Your task to perform on an android device: uninstall "PUBG MOBILE" Image 0: 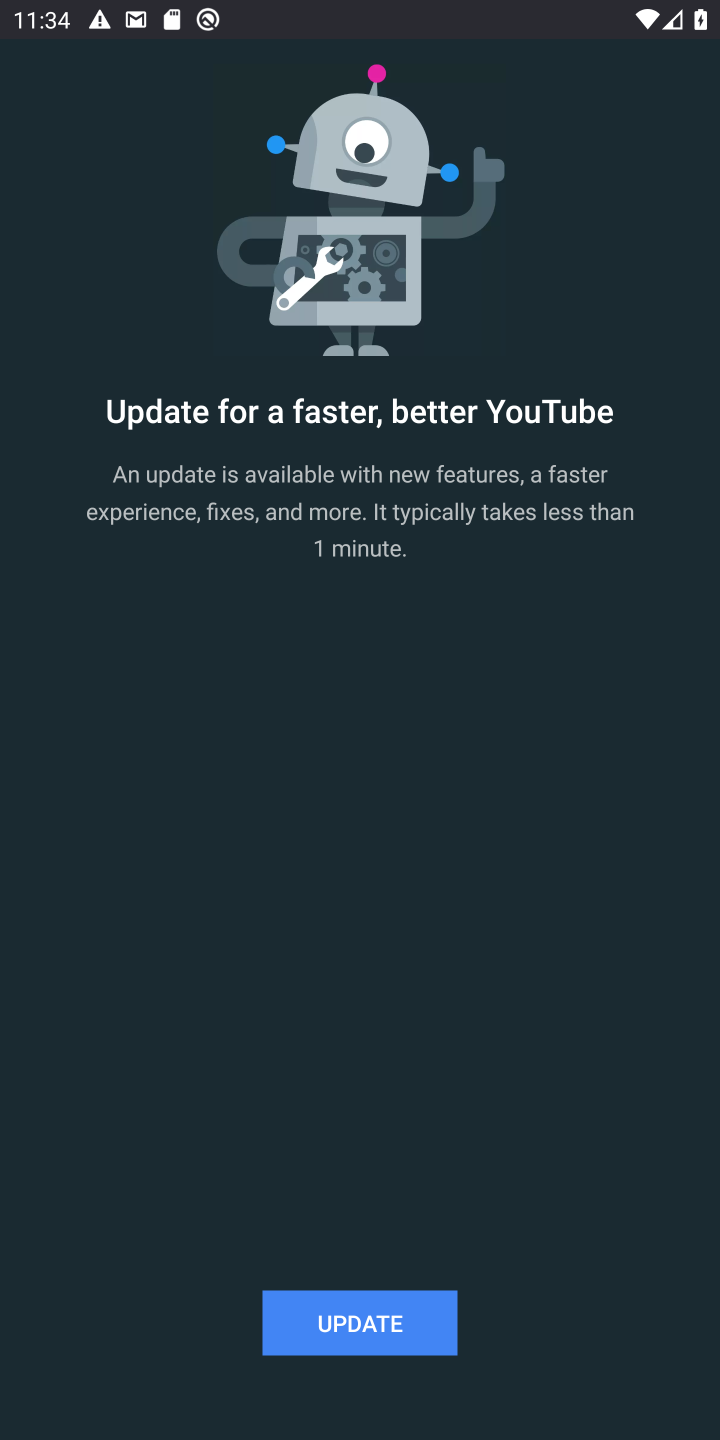
Step 0: press home button
Your task to perform on an android device: uninstall "PUBG MOBILE" Image 1: 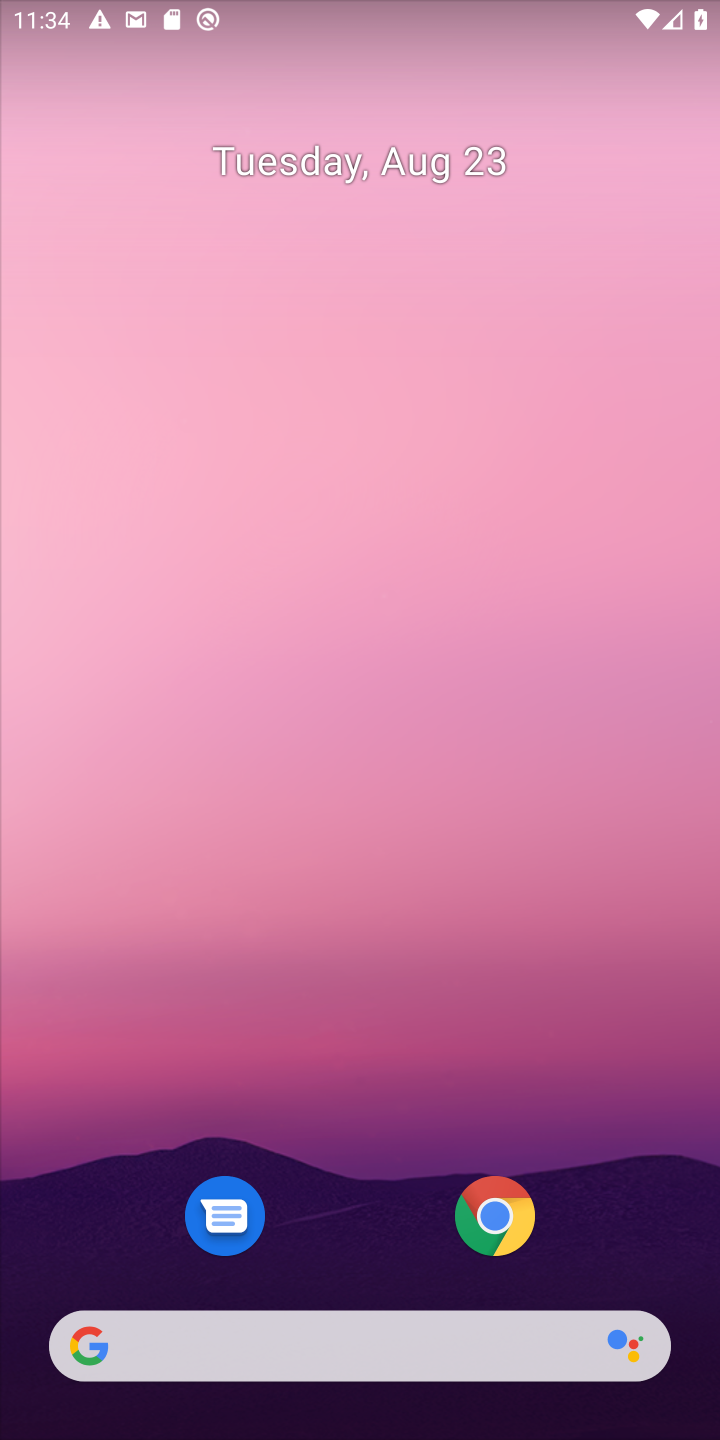
Step 1: drag from (297, 1357) to (303, 109)
Your task to perform on an android device: uninstall "PUBG MOBILE" Image 2: 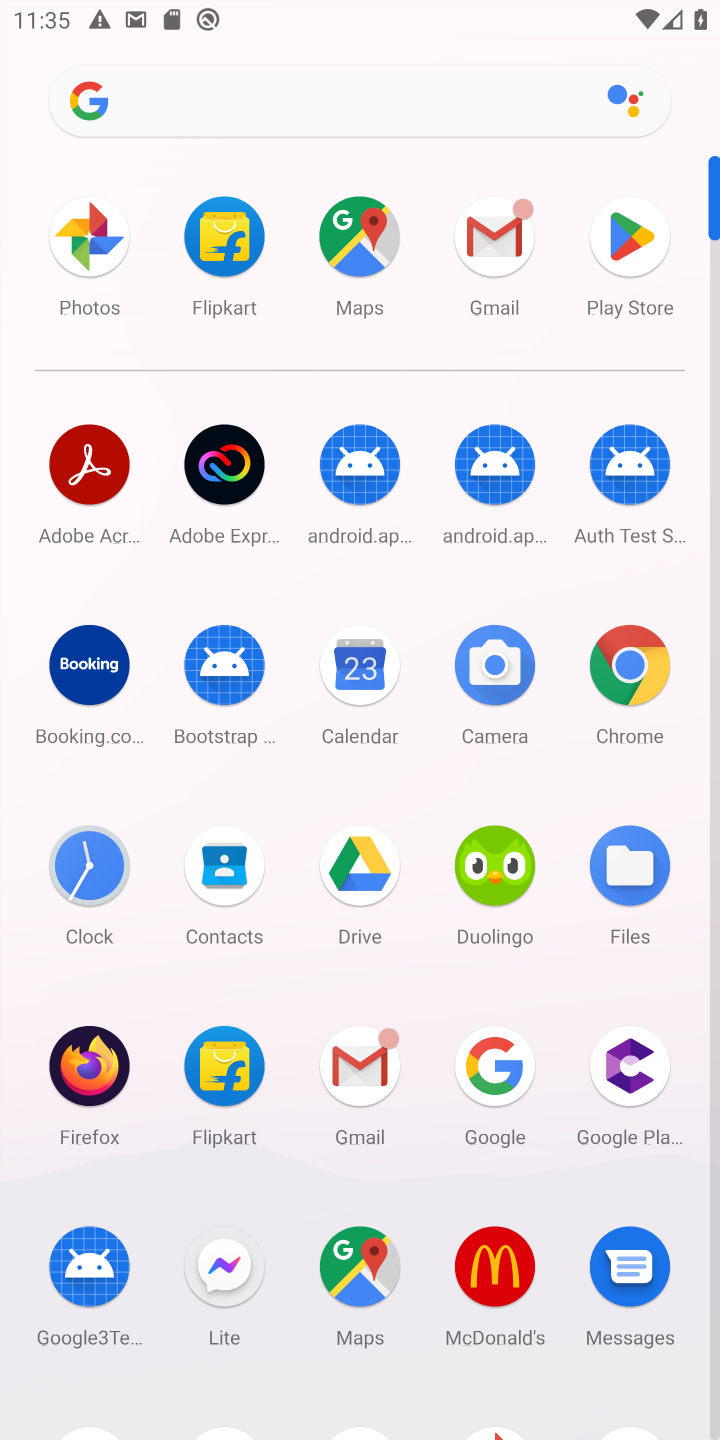
Step 2: click (638, 238)
Your task to perform on an android device: uninstall "PUBG MOBILE" Image 3: 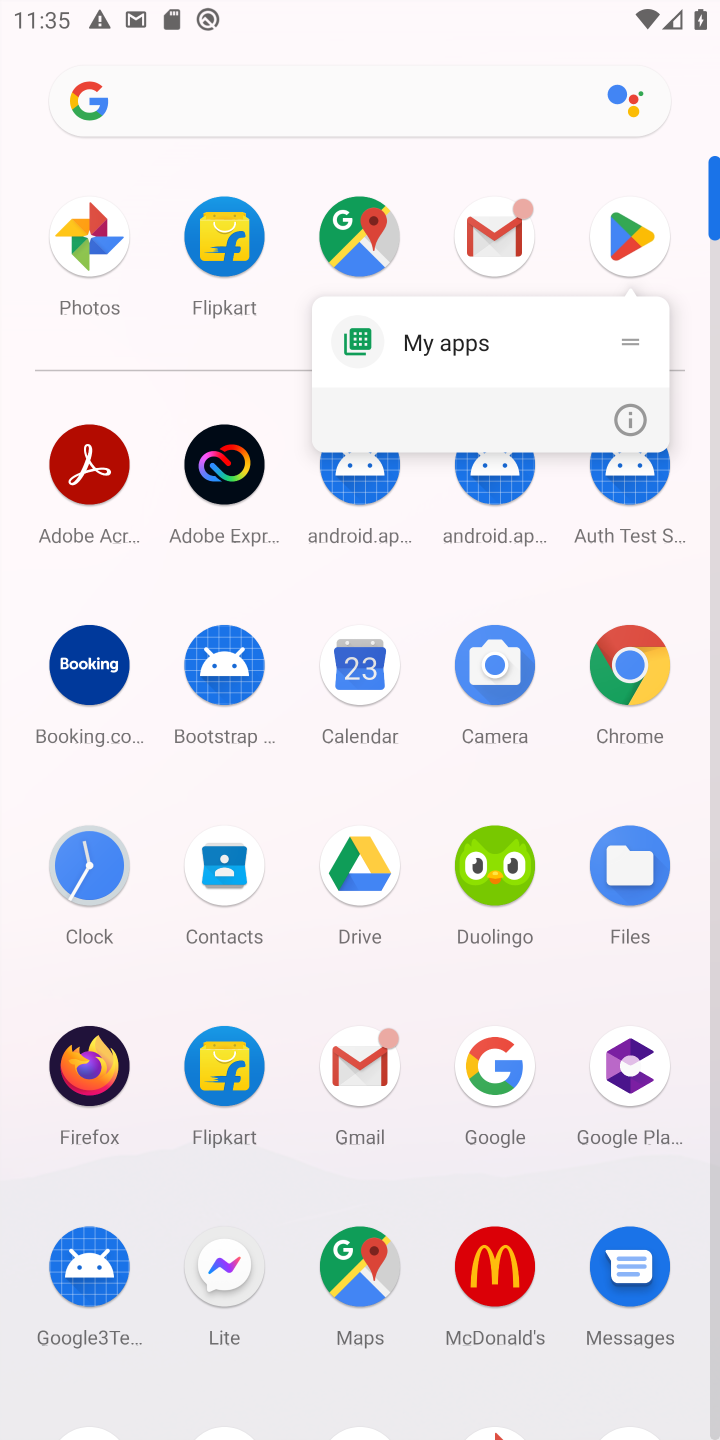
Step 3: click (638, 238)
Your task to perform on an android device: uninstall "PUBG MOBILE" Image 4: 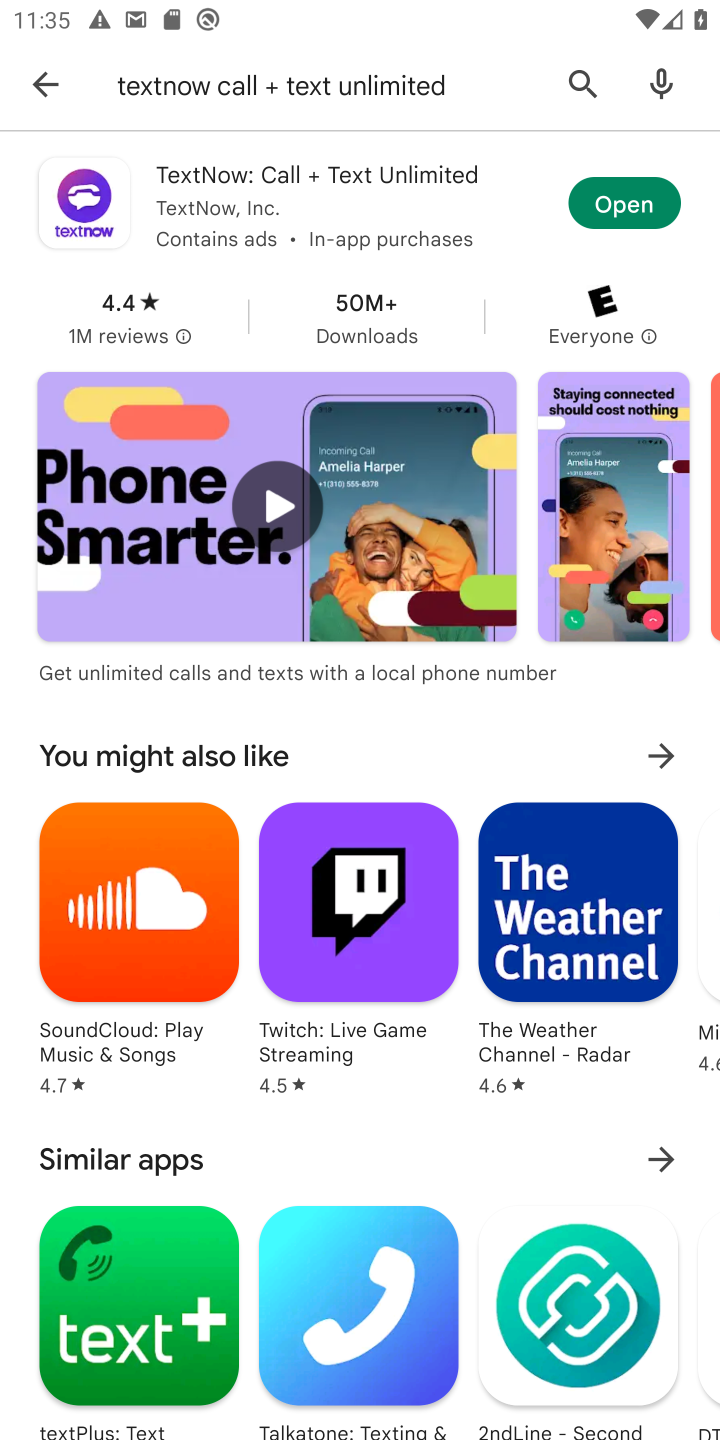
Step 4: press back button
Your task to perform on an android device: uninstall "PUBG MOBILE" Image 5: 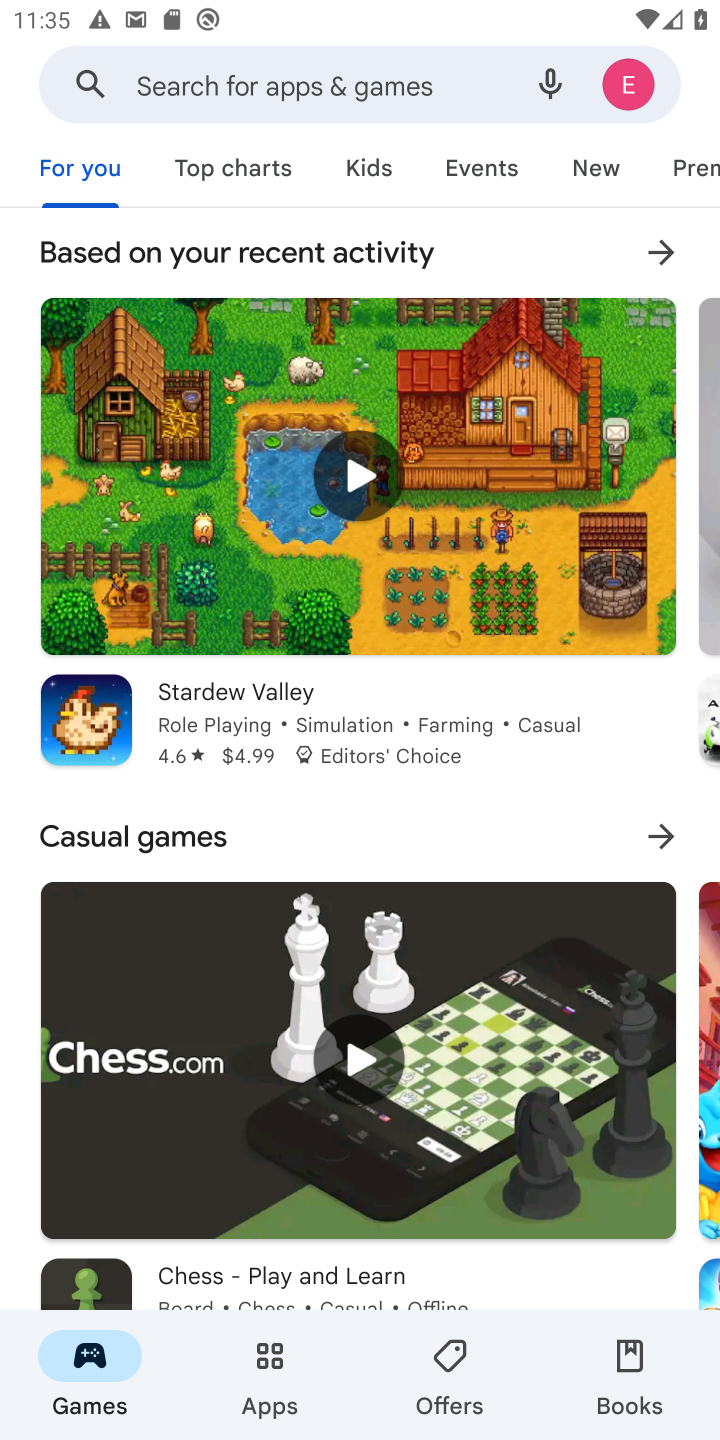
Step 5: click (351, 67)
Your task to perform on an android device: uninstall "PUBG MOBILE" Image 6: 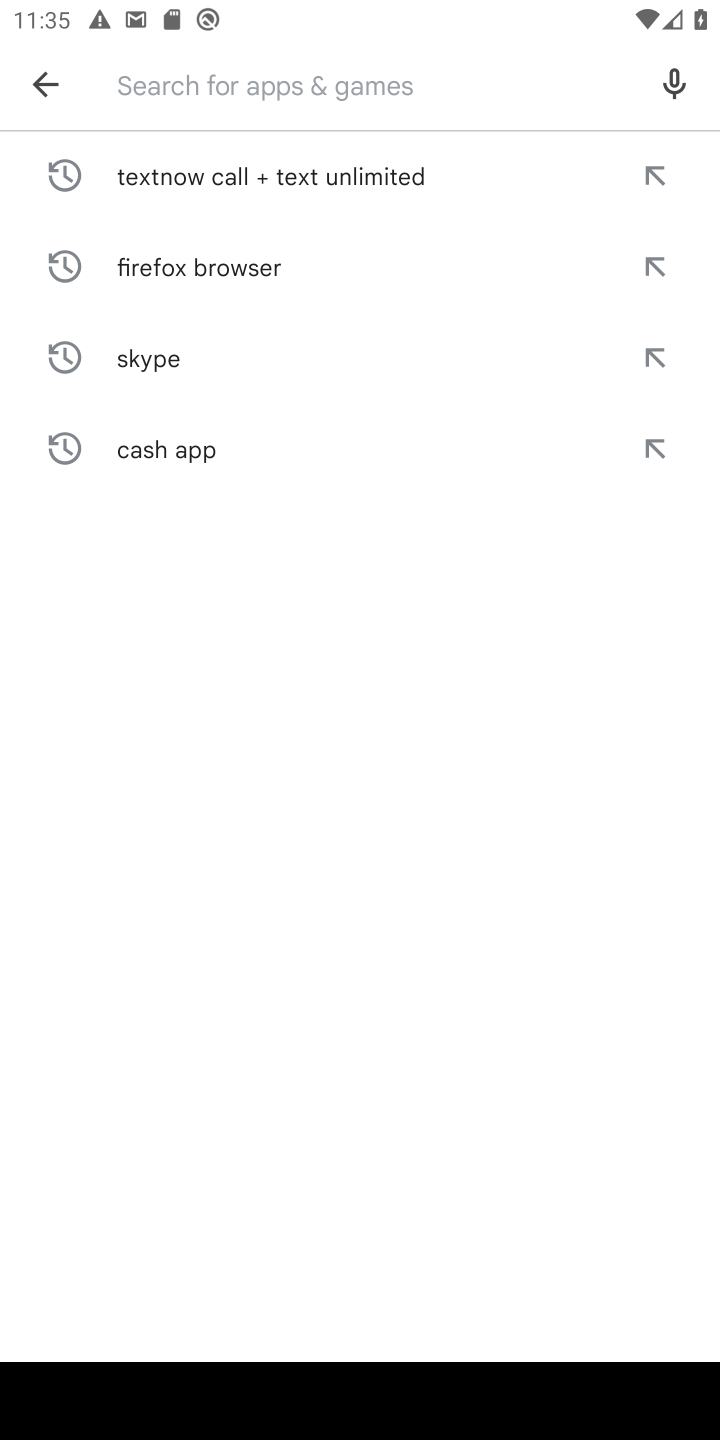
Step 6: click (162, 107)
Your task to perform on an android device: uninstall "PUBG MOBILE" Image 7: 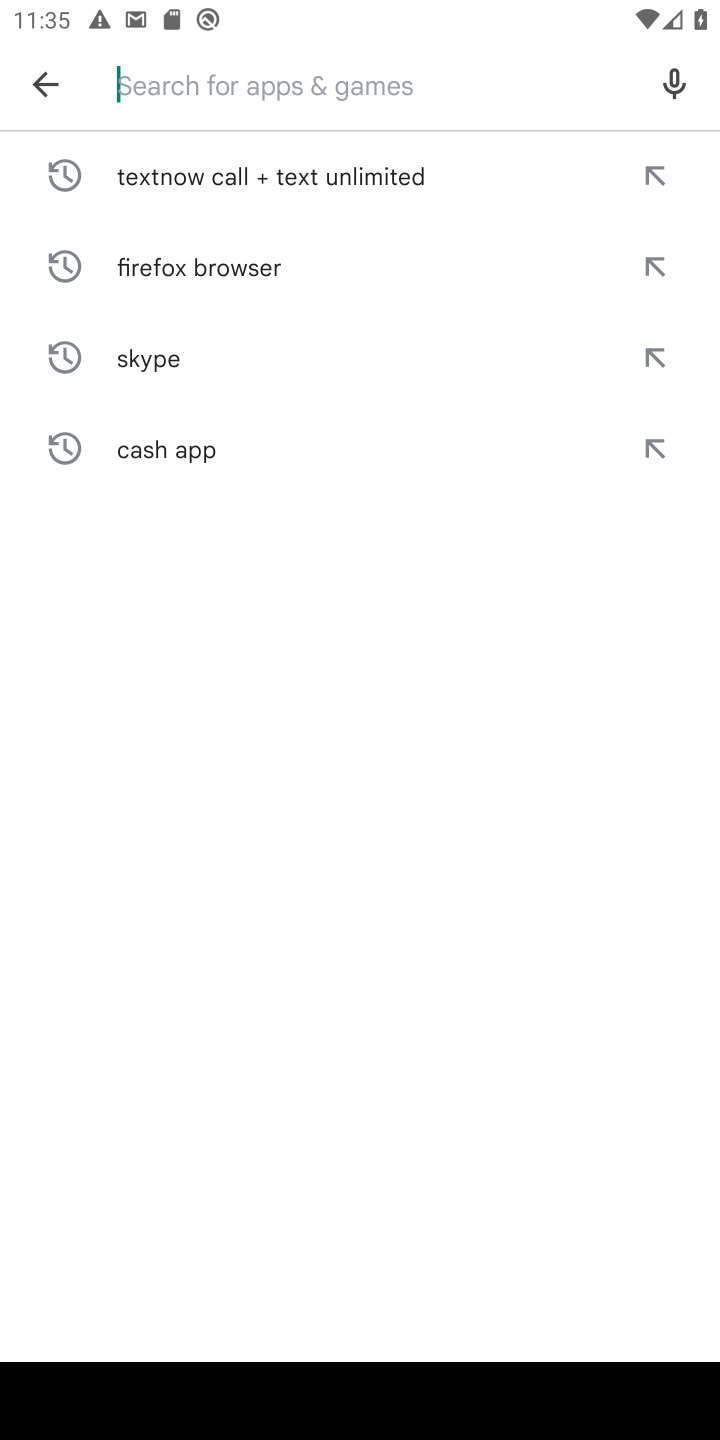
Step 7: type "PUBG MOBILE"
Your task to perform on an android device: uninstall "PUBG MOBILE" Image 8: 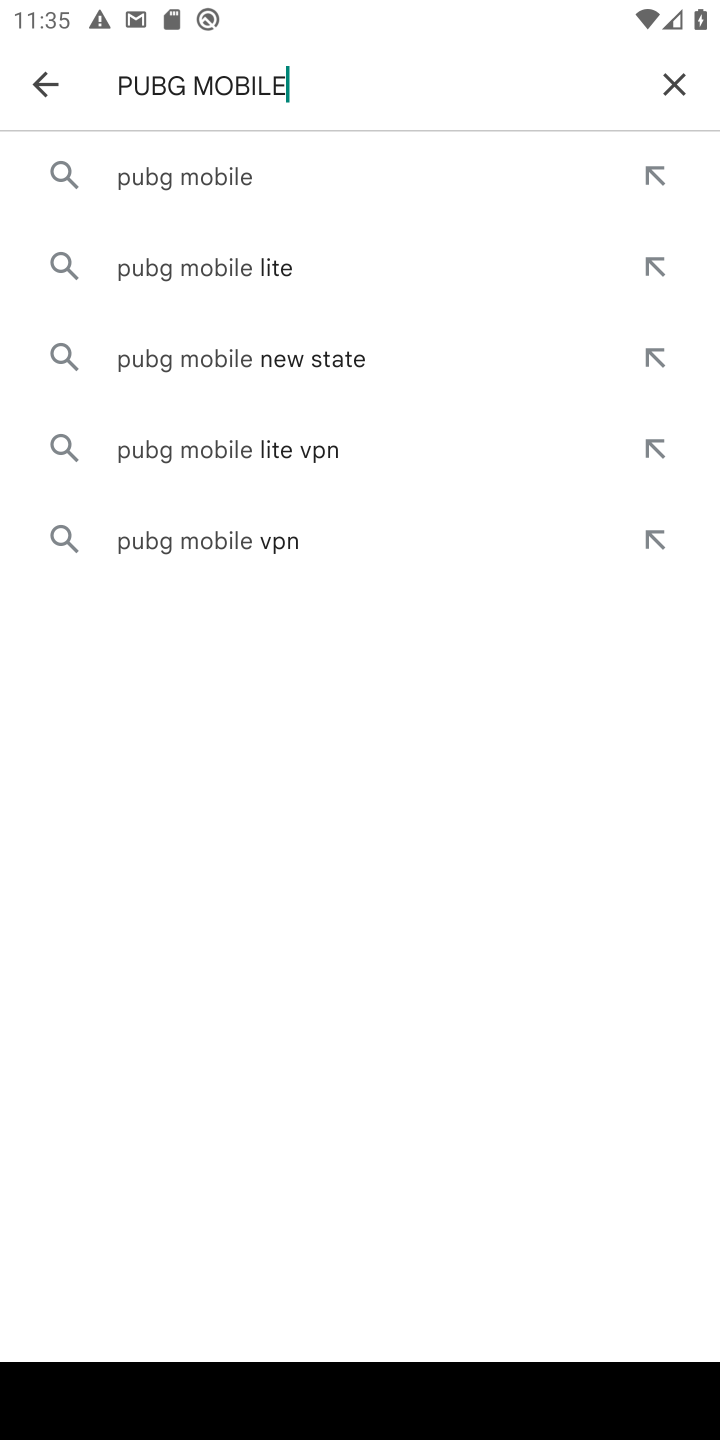
Step 8: click (181, 174)
Your task to perform on an android device: uninstall "PUBG MOBILE" Image 9: 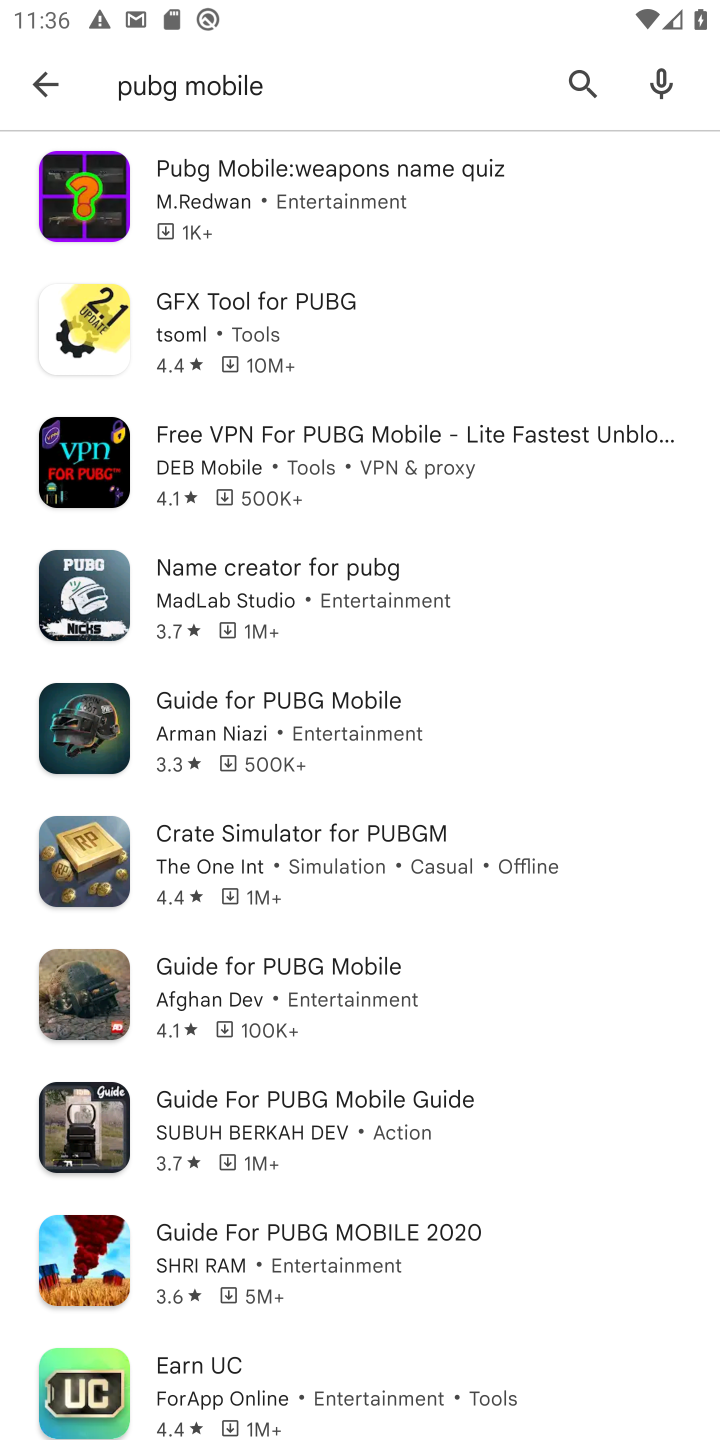
Step 9: task complete